Your task to perform on an android device: visit the assistant section in the google photos Image 0: 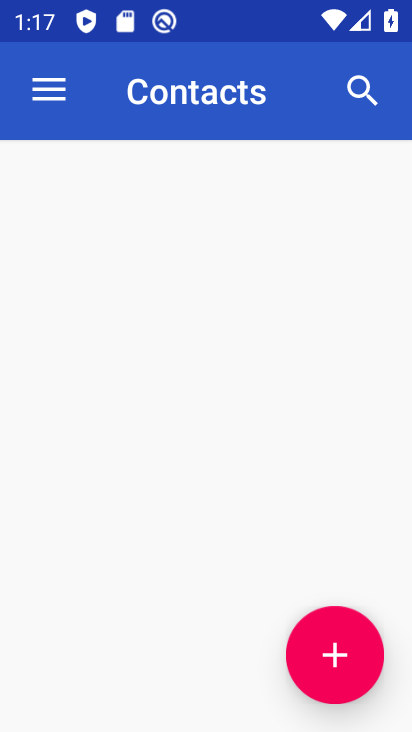
Step 0: click (267, 516)
Your task to perform on an android device: visit the assistant section in the google photos Image 1: 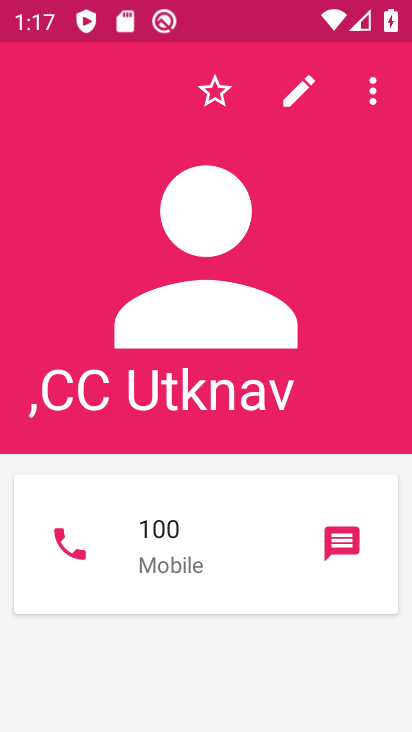
Step 1: press home button
Your task to perform on an android device: visit the assistant section in the google photos Image 2: 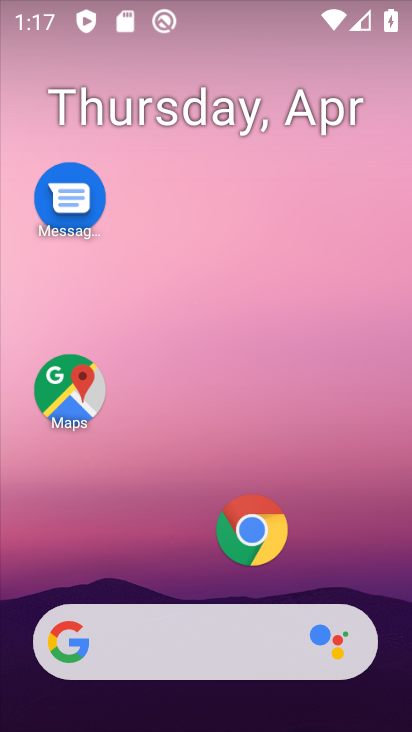
Step 2: drag from (212, 584) to (111, 29)
Your task to perform on an android device: visit the assistant section in the google photos Image 3: 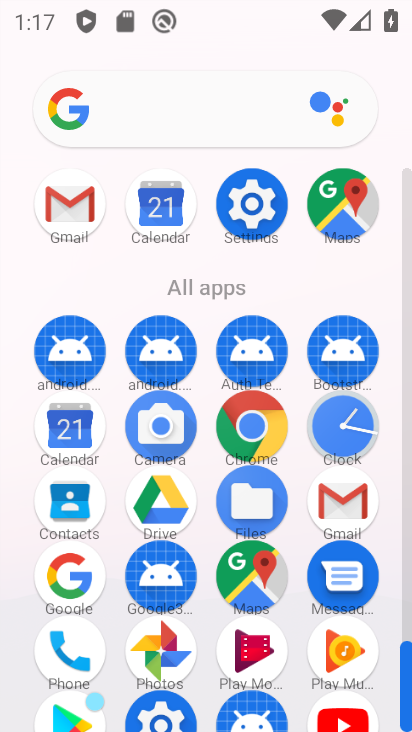
Step 3: click (155, 658)
Your task to perform on an android device: visit the assistant section in the google photos Image 4: 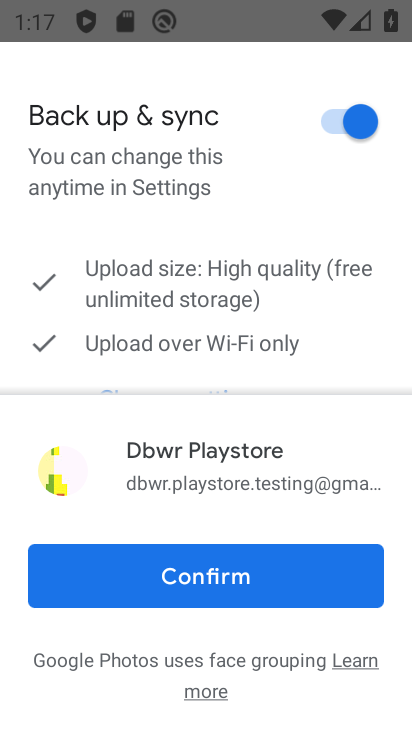
Step 4: click (203, 587)
Your task to perform on an android device: visit the assistant section in the google photos Image 5: 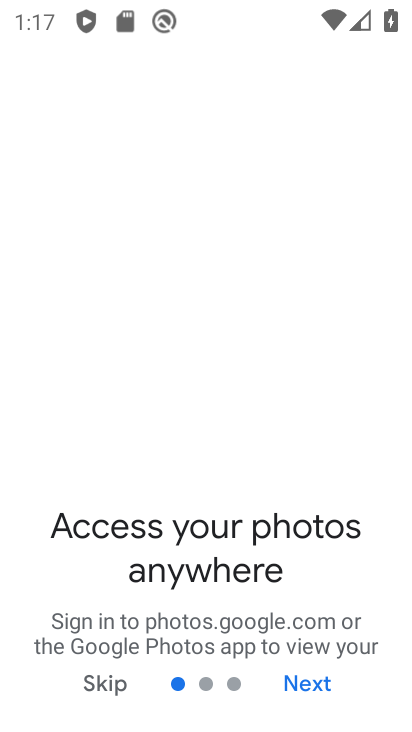
Step 5: click (91, 676)
Your task to perform on an android device: visit the assistant section in the google photos Image 6: 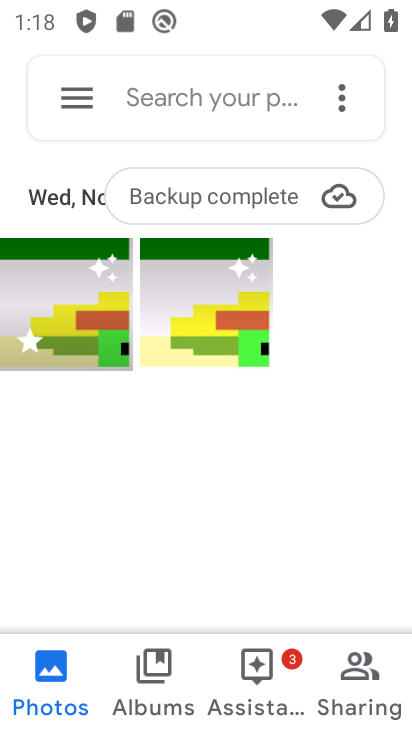
Step 6: click (227, 685)
Your task to perform on an android device: visit the assistant section in the google photos Image 7: 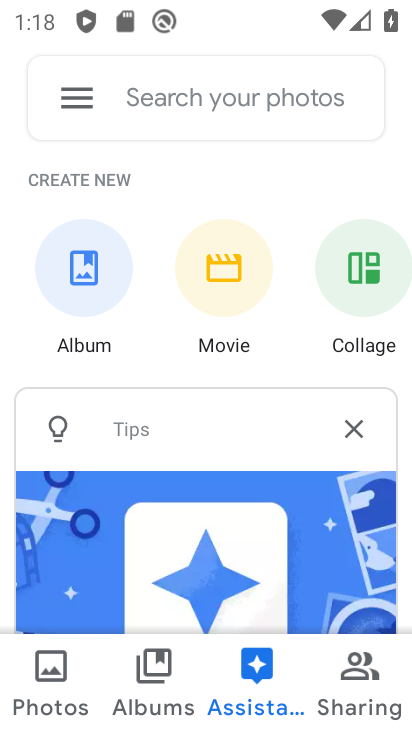
Step 7: task complete